Your task to perform on an android device: turn off data saver in the chrome app Image 0: 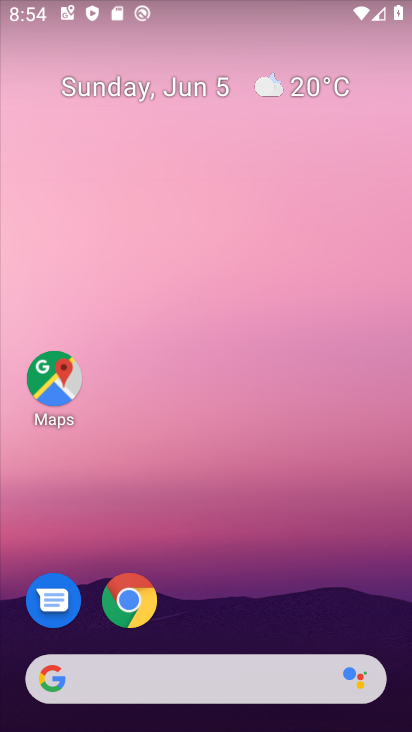
Step 0: click (142, 592)
Your task to perform on an android device: turn off data saver in the chrome app Image 1: 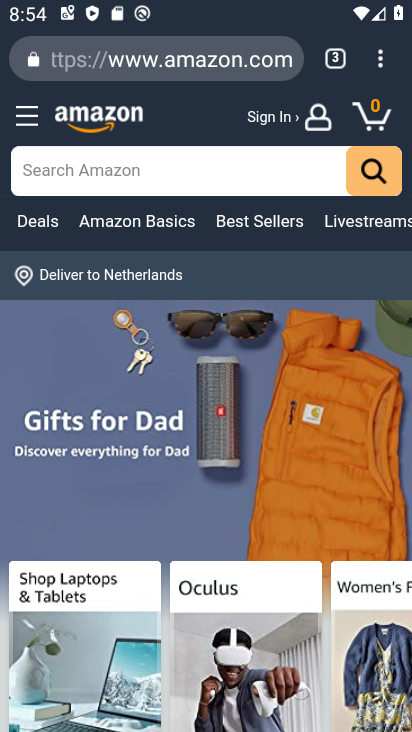
Step 1: click (381, 62)
Your task to perform on an android device: turn off data saver in the chrome app Image 2: 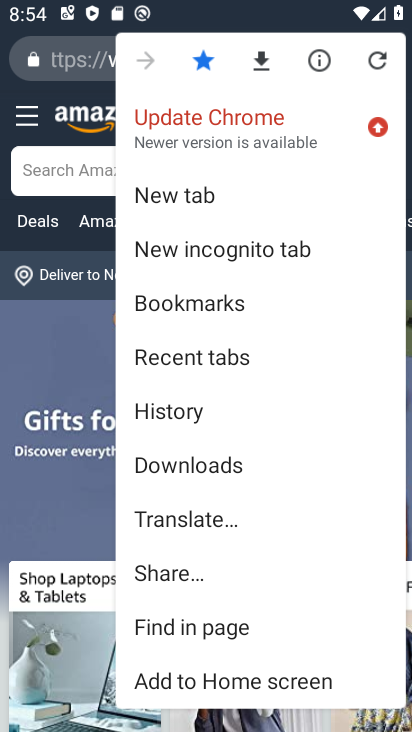
Step 2: drag from (242, 502) to (259, 211)
Your task to perform on an android device: turn off data saver in the chrome app Image 3: 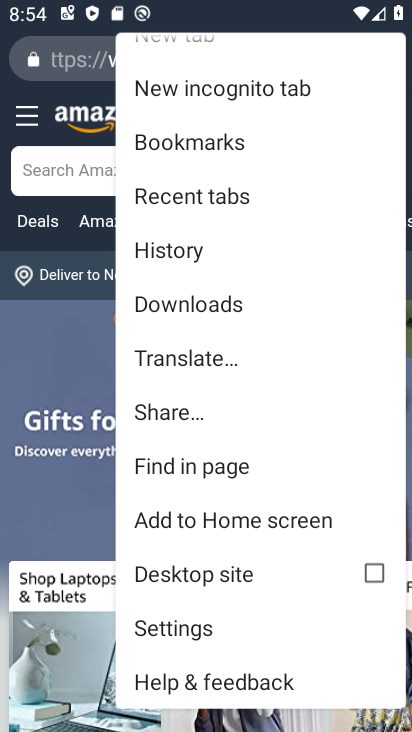
Step 3: click (222, 629)
Your task to perform on an android device: turn off data saver in the chrome app Image 4: 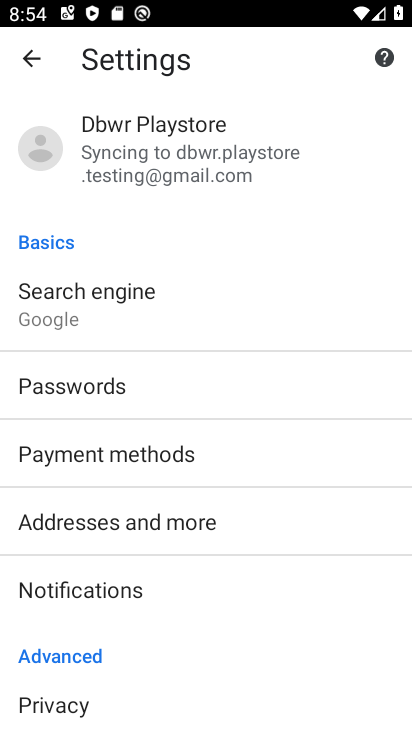
Step 4: drag from (280, 497) to (262, 185)
Your task to perform on an android device: turn off data saver in the chrome app Image 5: 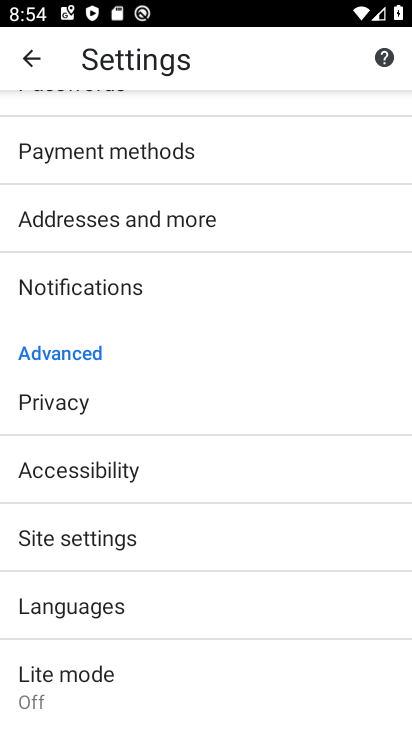
Step 5: click (139, 689)
Your task to perform on an android device: turn off data saver in the chrome app Image 6: 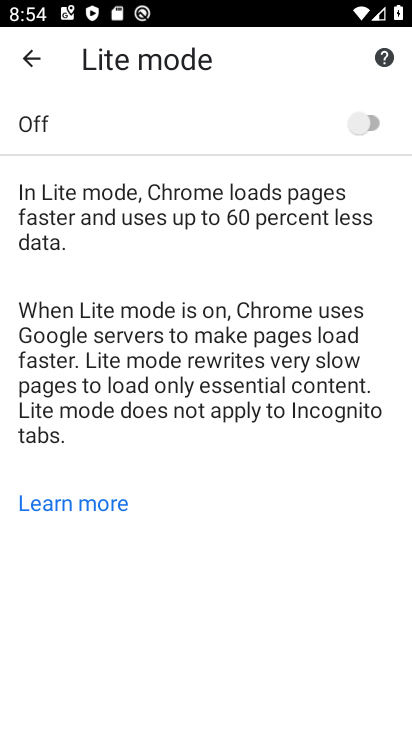
Step 6: task complete